Your task to perform on an android device: Add "usb-a" to the cart on walmart.com, then select checkout. Image 0: 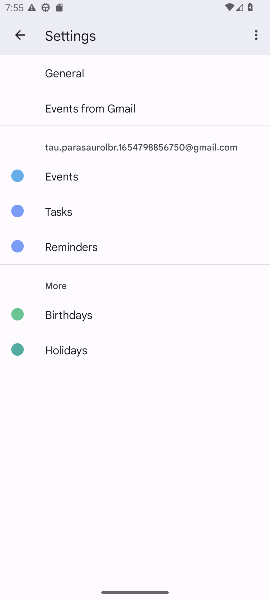
Step 0: press home button
Your task to perform on an android device: Add "usb-a" to the cart on walmart.com, then select checkout. Image 1: 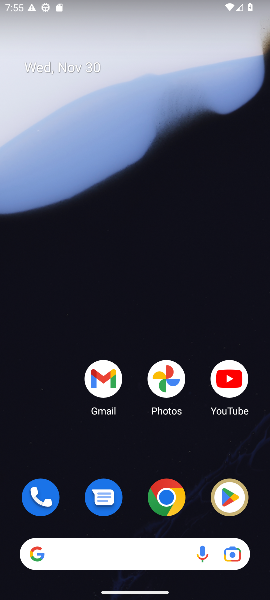
Step 1: click (168, 499)
Your task to perform on an android device: Add "usb-a" to the cart on walmart.com, then select checkout. Image 2: 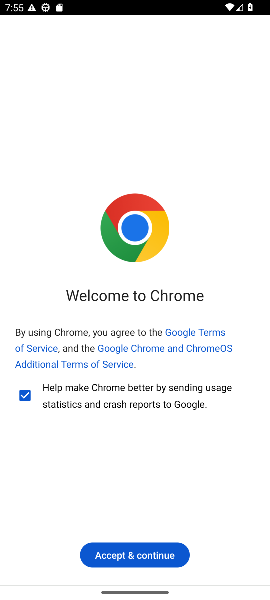
Step 2: click (136, 548)
Your task to perform on an android device: Add "usb-a" to the cart on walmart.com, then select checkout. Image 3: 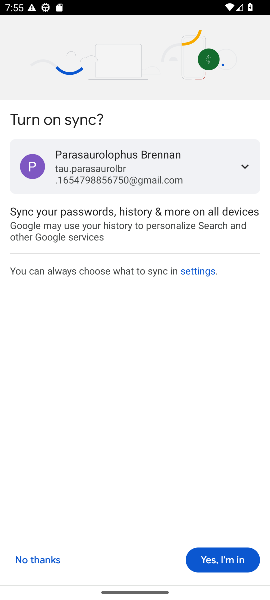
Step 3: click (210, 559)
Your task to perform on an android device: Add "usb-a" to the cart on walmart.com, then select checkout. Image 4: 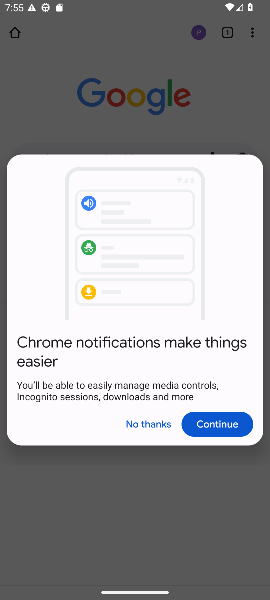
Step 4: click (154, 421)
Your task to perform on an android device: Add "usb-a" to the cart on walmart.com, then select checkout. Image 5: 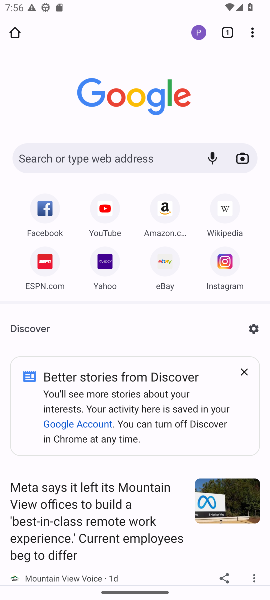
Step 5: click (106, 151)
Your task to perform on an android device: Add "usb-a" to the cart on walmart.com, then select checkout. Image 6: 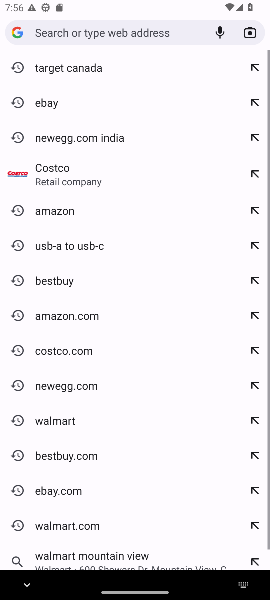
Step 6: click (77, 32)
Your task to perform on an android device: Add "usb-a" to the cart on walmart.com, then select checkout. Image 7: 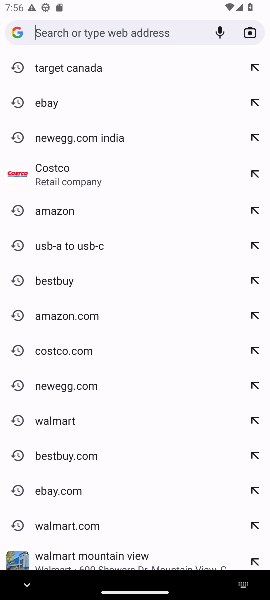
Step 7: type "walmart.com"
Your task to perform on an android device: Add "usb-a" to the cart on walmart.com, then select checkout. Image 8: 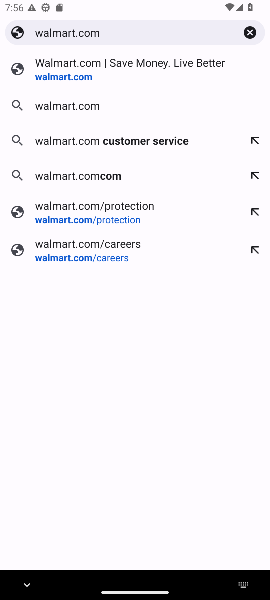
Step 8: click (73, 76)
Your task to perform on an android device: Add "usb-a" to the cart on walmart.com, then select checkout. Image 9: 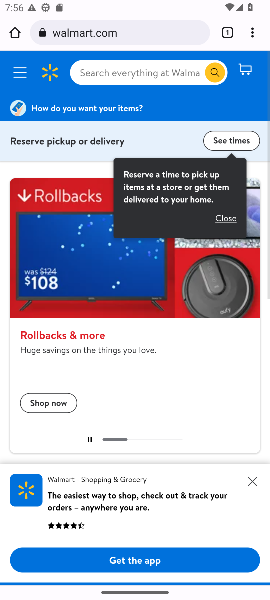
Step 9: click (168, 72)
Your task to perform on an android device: Add "usb-a" to the cart on walmart.com, then select checkout. Image 10: 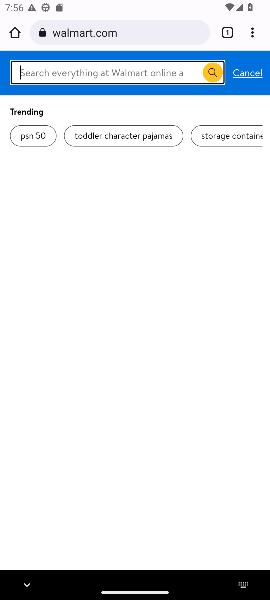
Step 10: type "usb-a"
Your task to perform on an android device: Add "usb-a" to the cart on walmart.com, then select checkout. Image 11: 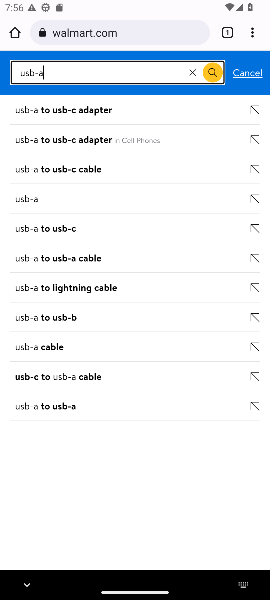
Step 11: click (40, 199)
Your task to perform on an android device: Add "usb-a" to the cart on walmart.com, then select checkout. Image 12: 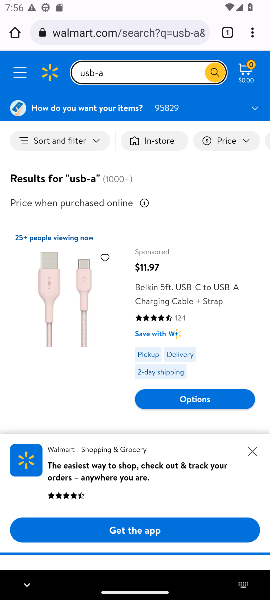
Step 12: click (86, 295)
Your task to perform on an android device: Add "usb-a" to the cart on walmart.com, then select checkout. Image 13: 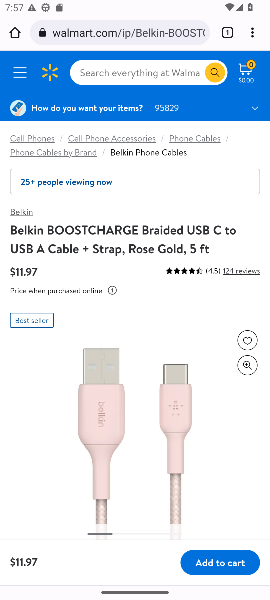
Step 13: click (221, 564)
Your task to perform on an android device: Add "usb-a" to the cart on walmart.com, then select checkout. Image 14: 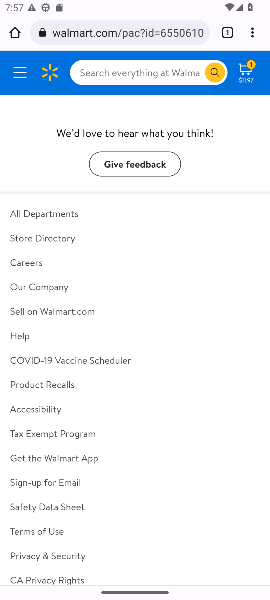
Step 14: task complete